Your task to perform on an android device: delete browsing data in the chrome app Image 0: 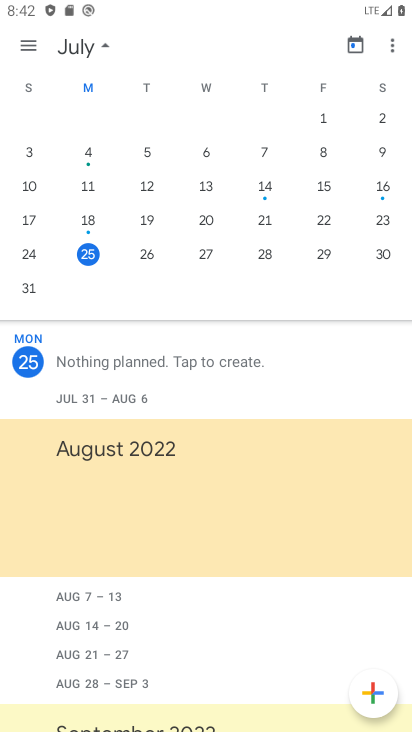
Step 0: press home button
Your task to perform on an android device: delete browsing data in the chrome app Image 1: 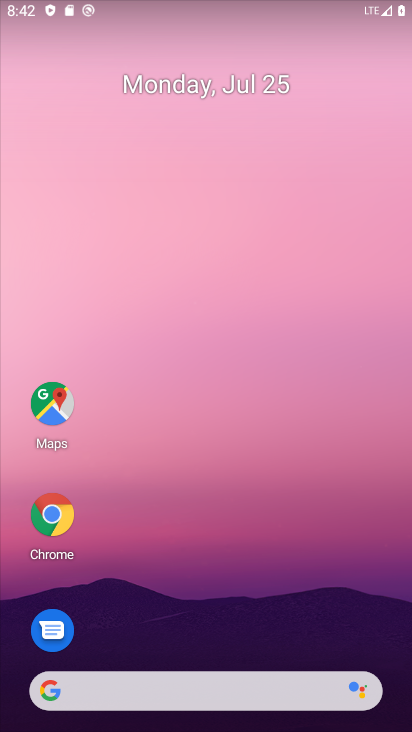
Step 1: click (58, 519)
Your task to perform on an android device: delete browsing data in the chrome app Image 2: 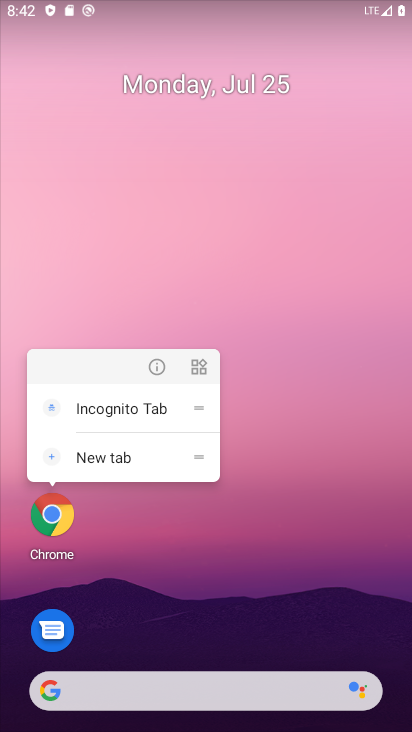
Step 2: click (73, 520)
Your task to perform on an android device: delete browsing data in the chrome app Image 3: 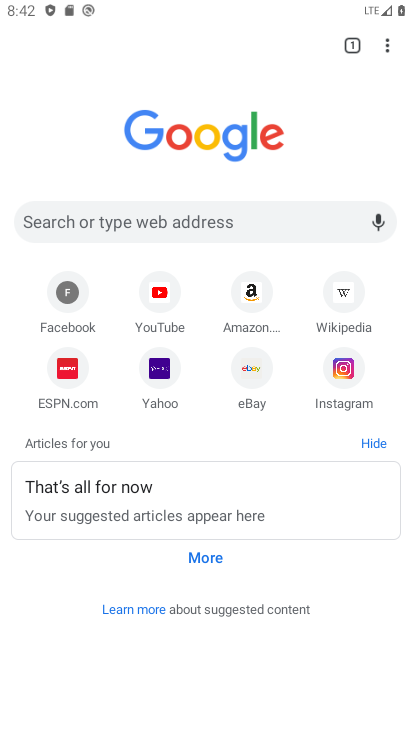
Step 3: click (387, 49)
Your task to perform on an android device: delete browsing data in the chrome app Image 4: 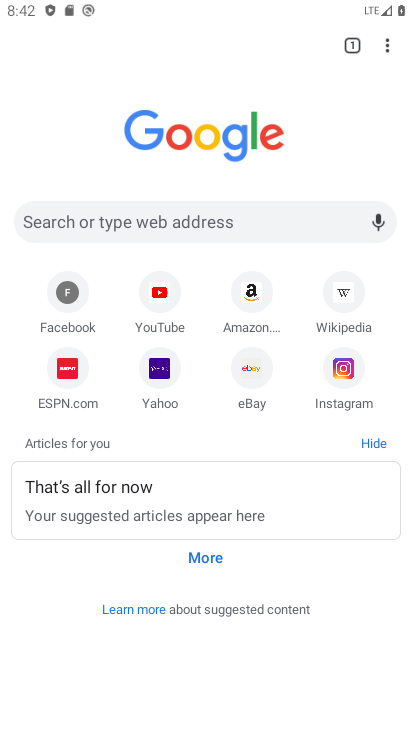
Step 4: click (388, 45)
Your task to perform on an android device: delete browsing data in the chrome app Image 5: 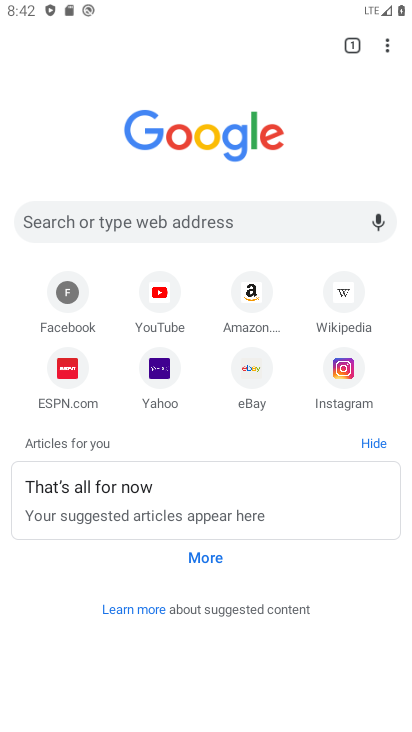
Step 5: click (389, 47)
Your task to perform on an android device: delete browsing data in the chrome app Image 6: 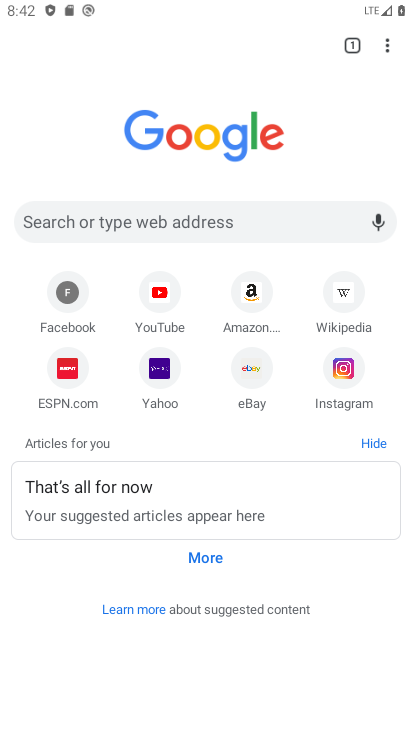
Step 6: click (389, 45)
Your task to perform on an android device: delete browsing data in the chrome app Image 7: 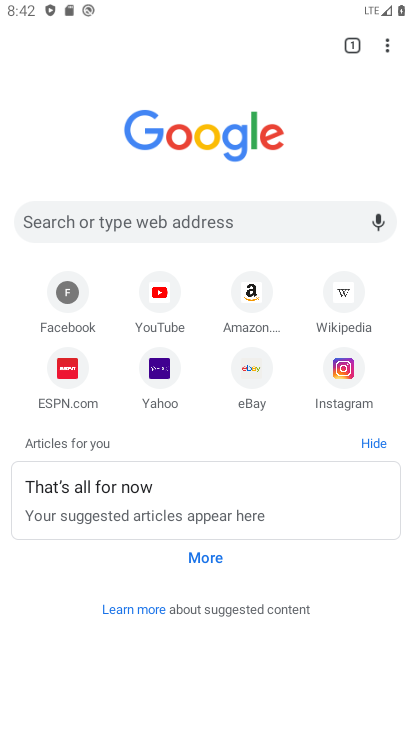
Step 7: click (383, 43)
Your task to perform on an android device: delete browsing data in the chrome app Image 8: 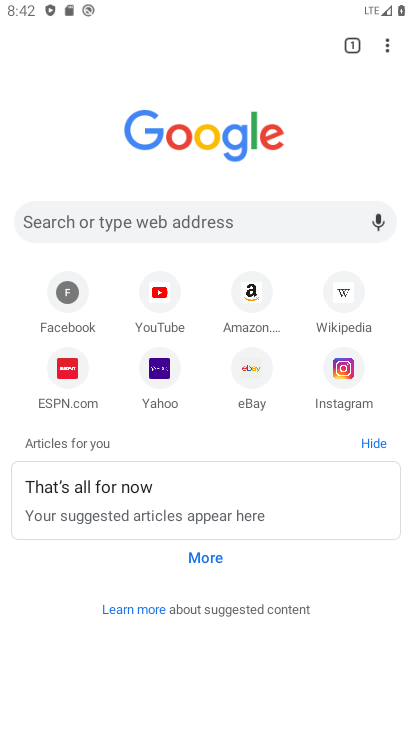
Step 8: click (385, 43)
Your task to perform on an android device: delete browsing data in the chrome app Image 9: 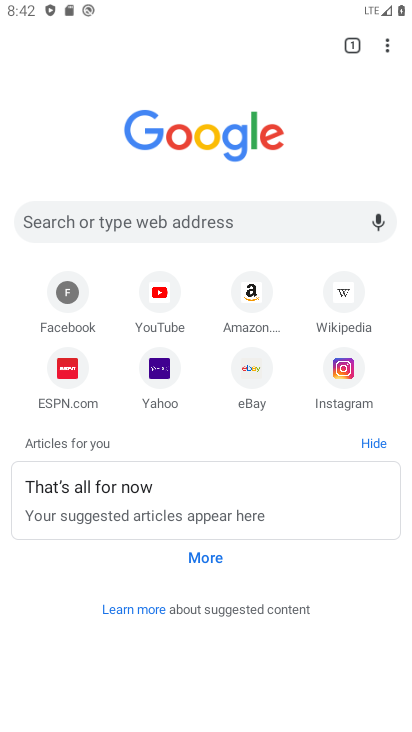
Step 9: click (389, 38)
Your task to perform on an android device: delete browsing data in the chrome app Image 10: 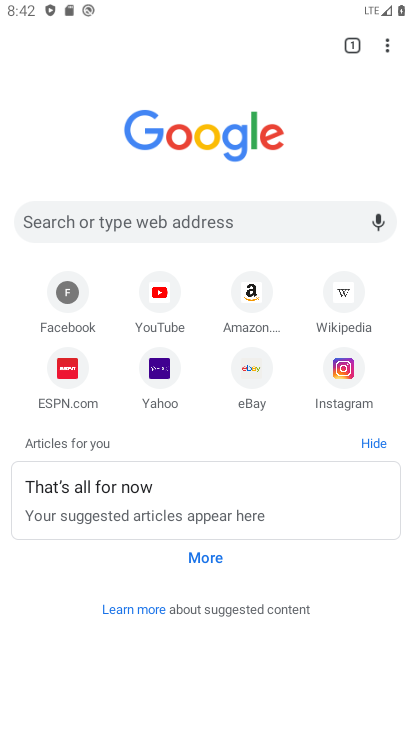
Step 10: click (388, 39)
Your task to perform on an android device: delete browsing data in the chrome app Image 11: 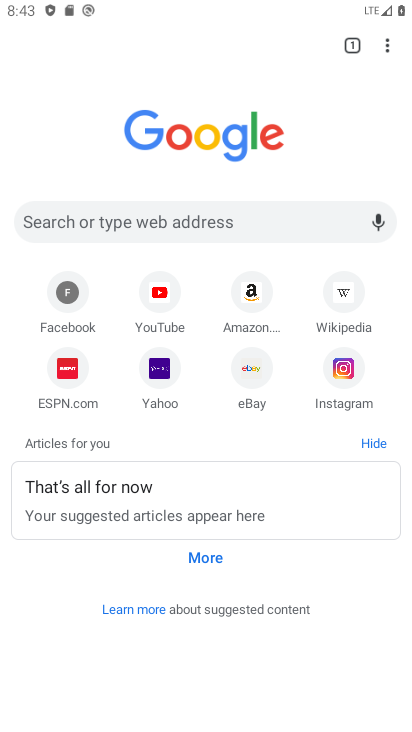
Step 11: click (385, 44)
Your task to perform on an android device: delete browsing data in the chrome app Image 12: 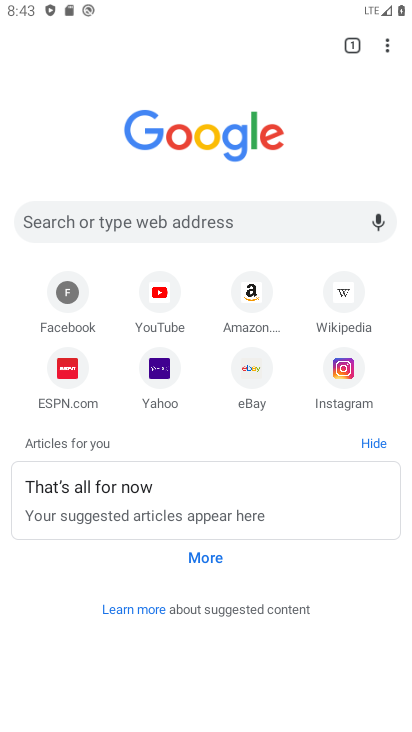
Step 12: task complete